Your task to perform on an android device: Open Youtube and go to the subscriptions tab Image 0: 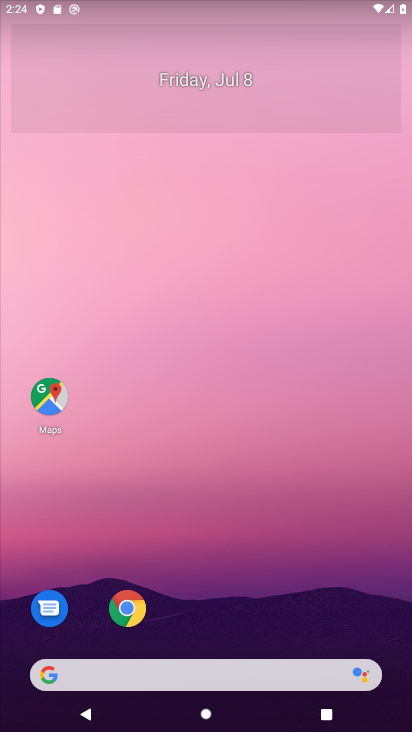
Step 0: drag from (211, 648) to (163, 49)
Your task to perform on an android device: Open Youtube and go to the subscriptions tab Image 1: 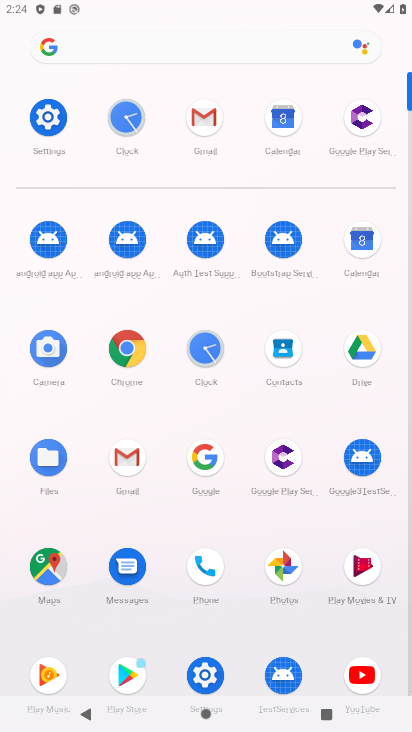
Step 1: click (359, 675)
Your task to perform on an android device: Open Youtube and go to the subscriptions tab Image 2: 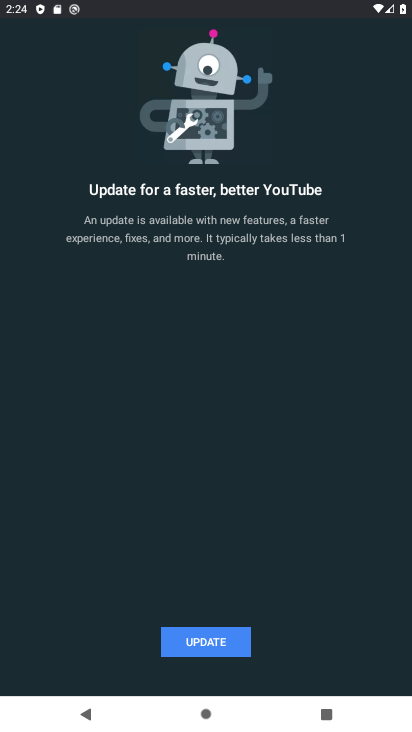
Step 2: click (228, 639)
Your task to perform on an android device: Open Youtube and go to the subscriptions tab Image 3: 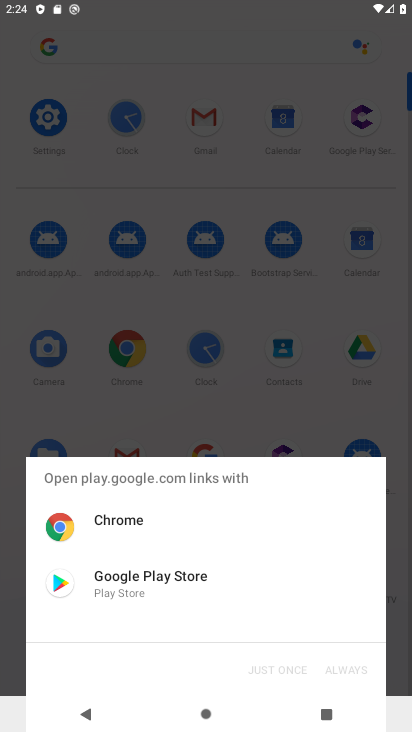
Step 3: click (166, 584)
Your task to perform on an android device: Open Youtube and go to the subscriptions tab Image 4: 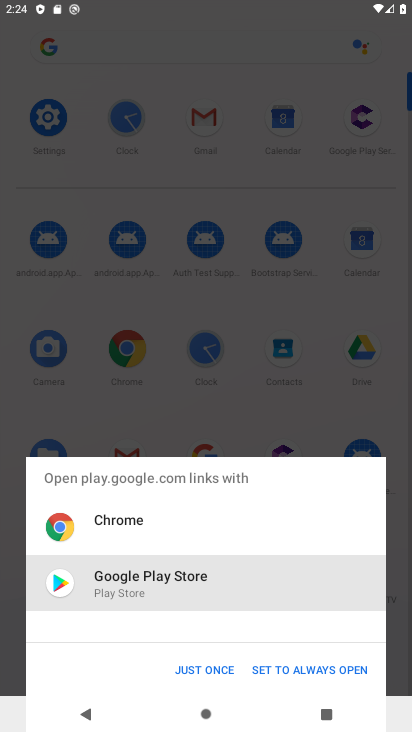
Step 4: click (207, 669)
Your task to perform on an android device: Open Youtube and go to the subscriptions tab Image 5: 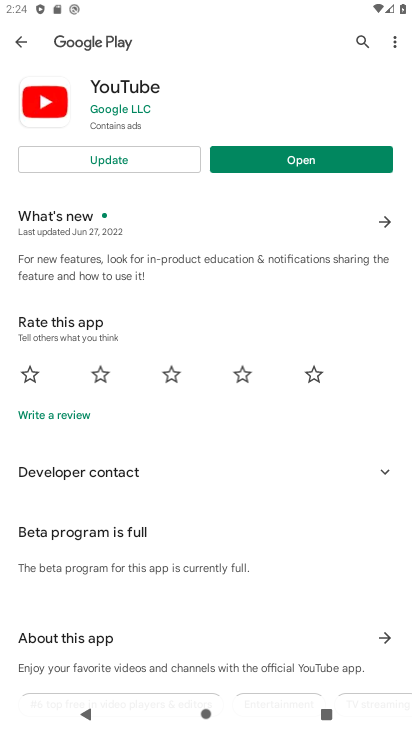
Step 5: click (141, 159)
Your task to perform on an android device: Open Youtube and go to the subscriptions tab Image 6: 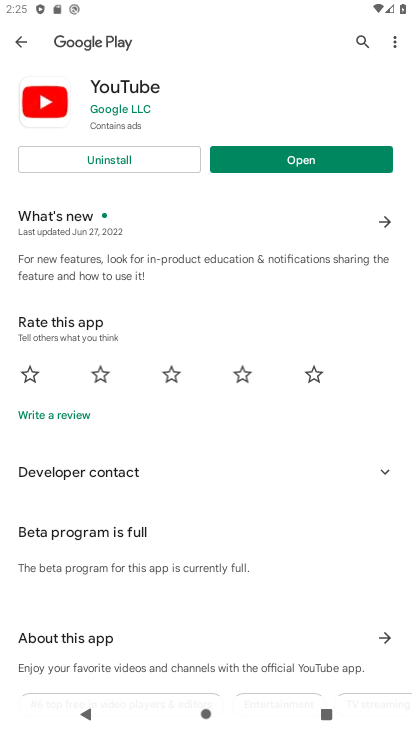
Step 6: click (311, 150)
Your task to perform on an android device: Open Youtube and go to the subscriptions tab Image 7: 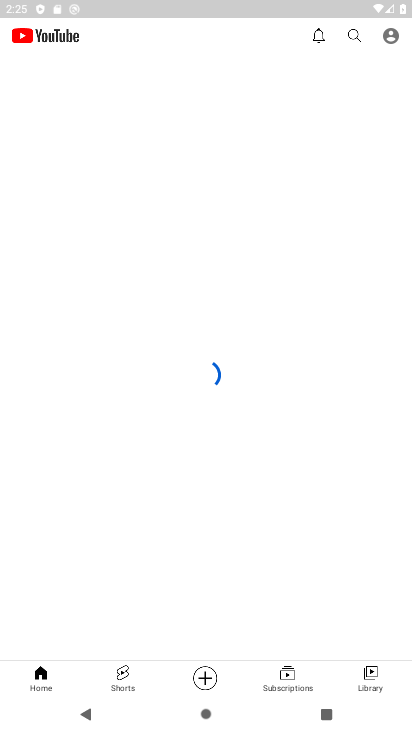
Step 7: click (259, 680)
Your task to perform on an android device: Open Youtube and go to the subscriptions tab Image 8: 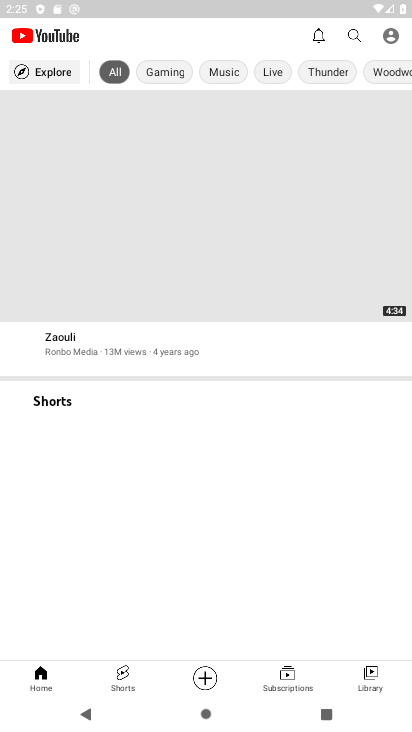
Step 8: click (274, 680)
Your task to perform on an android device: Open Youtube and go to the subscriptions tab Image 9: 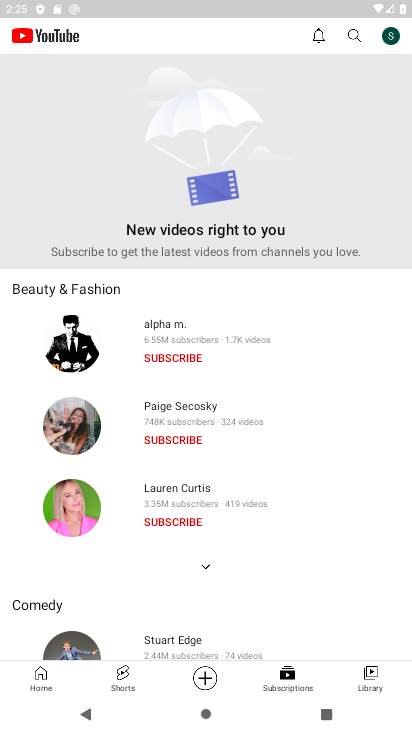
Step 9: task complete